Your task to perform on an android device: turn on airplane mode Image 0: 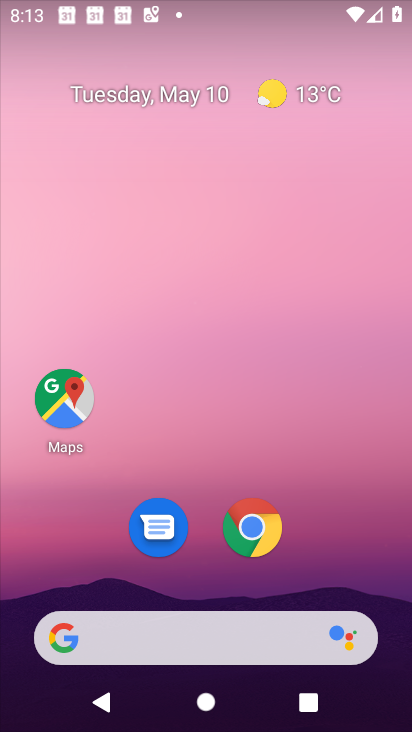
Step 0: drag from (15, 574) to (304, 83)
Your task to perform on an android device: turn on airplane mode Image 1: 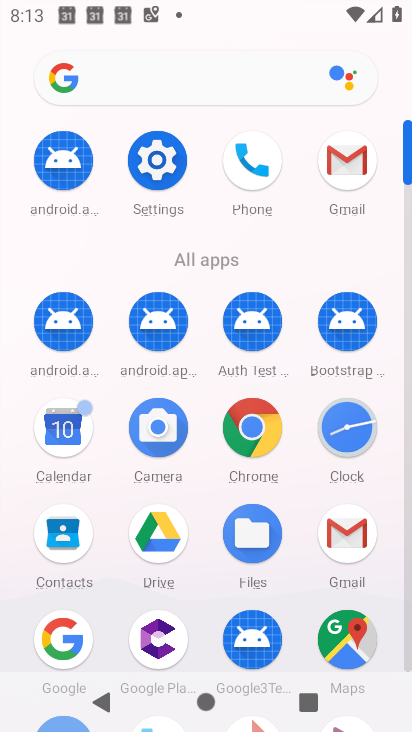
Step 1: click (167, 154)
Your task to perform on an android device: turn on airplane mode Image 2: 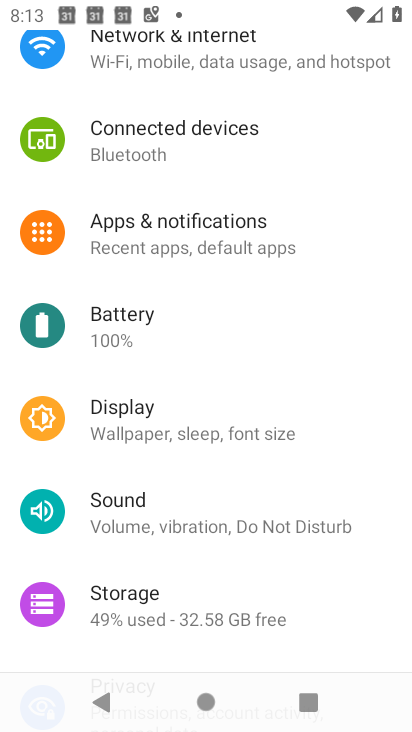
Step 2: click (201, 67)
Your task to perform on an android device: turn on airplane mode Image 3: 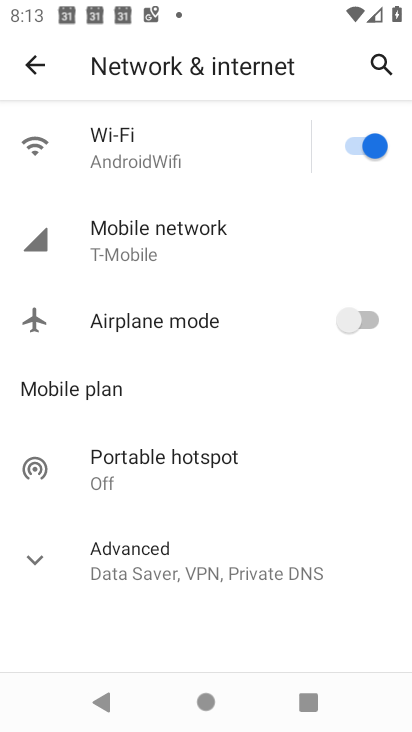
Step 3: click (342, 325)
Your task to perform on an android device: turn on airplane mode Image 4: 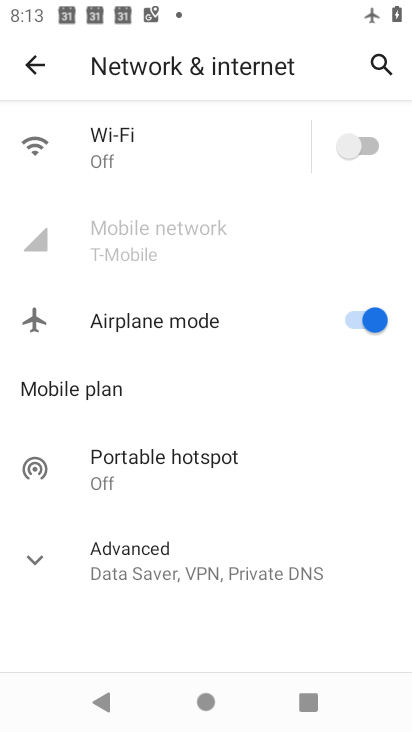
Step 4: task complete